Your task to perform on an android device: Show me productivity apps on the Play Store Image 0: 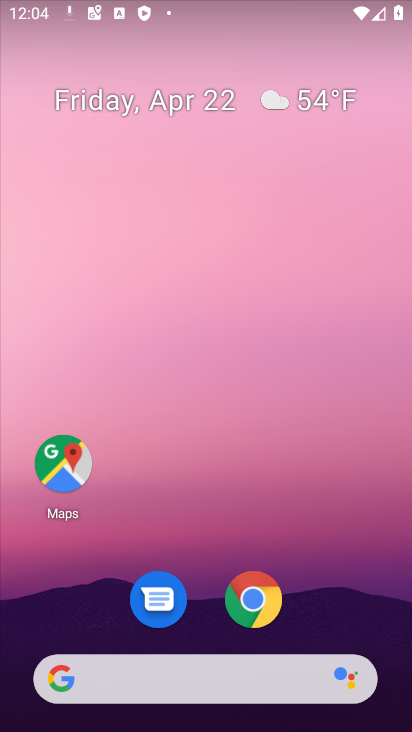
Step 0: drag from (221, 504) to (187, 58)
Your task to perform on an android device: Show me productivity apps on the Play Store Image 1: 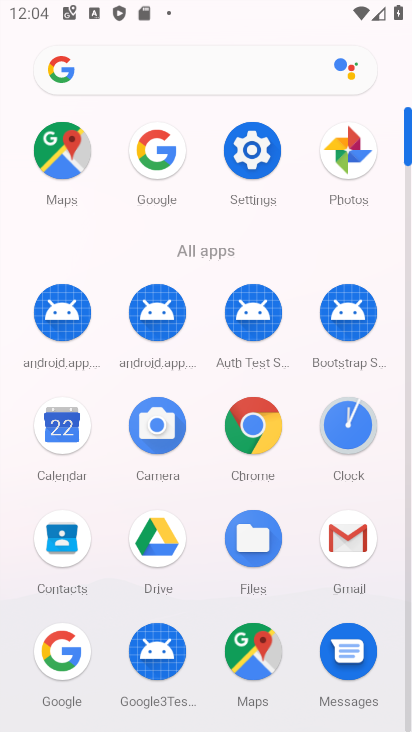
Step 1: drag from (203, 673) to (160, 220)
Your task to perform on an android device: Show me productivity apps on the Play Store Image 2: 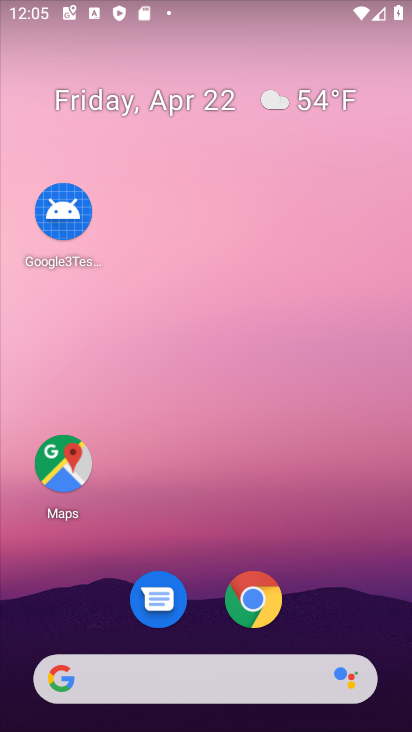
Step 2: drag from (307, 626) to (180, 19)
Your task to perform on an android device: Show me productivity apps on the Play Store Image 3: 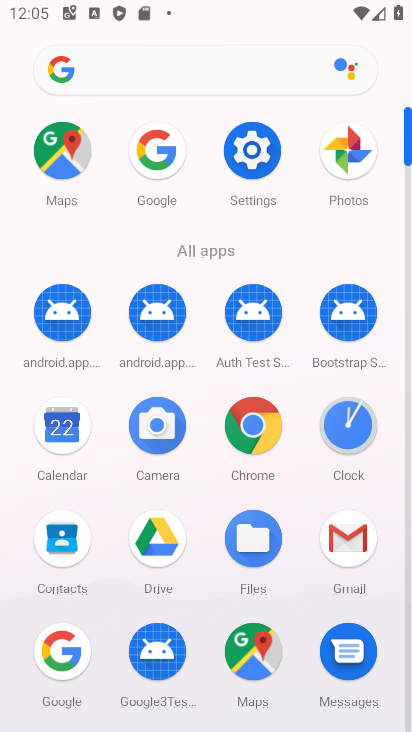
Step 3: drag from (211, 598) to (231, 52)
Your task to perform on an android device: Show me productivity apps on the Play Store Image 4: 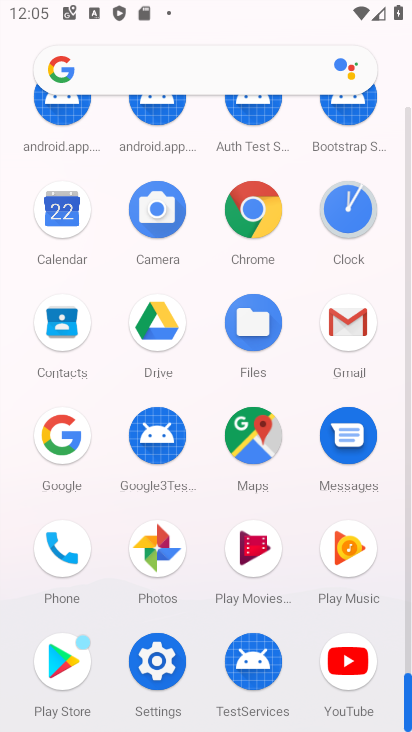
Step 4: click (72, 659)
Your task to perform on an android device: Show me productivity apps on the Play Store Image 5: 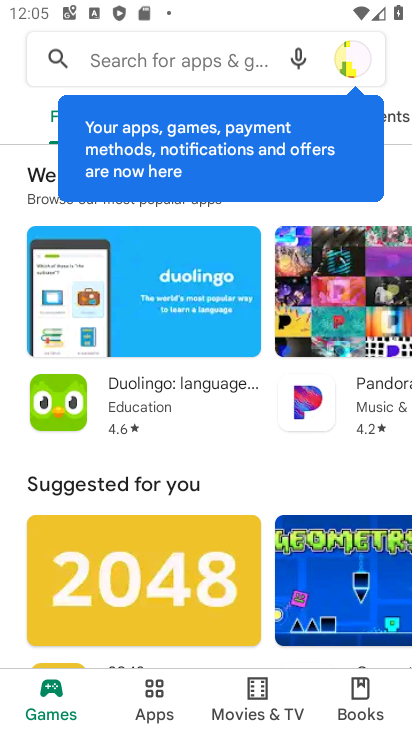
Step 5: click (202, 60)
Your task to perform on an android device: Show me productivity apps on the Play Store Image 6: 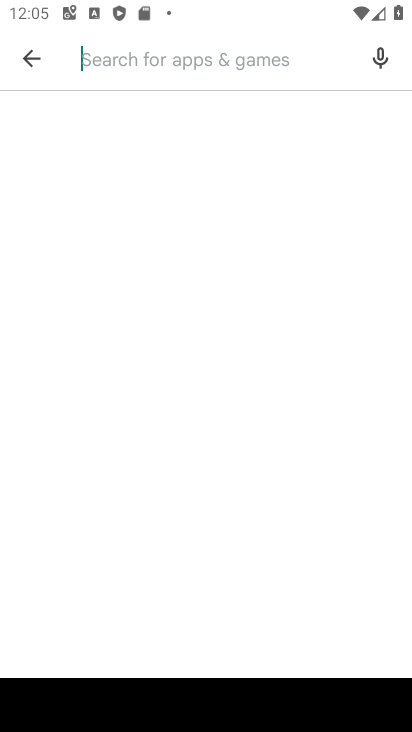
Step 6: type "productivity apps"
Your task to perform on an android device: Show me productivity apps on the Play Store Image 7: 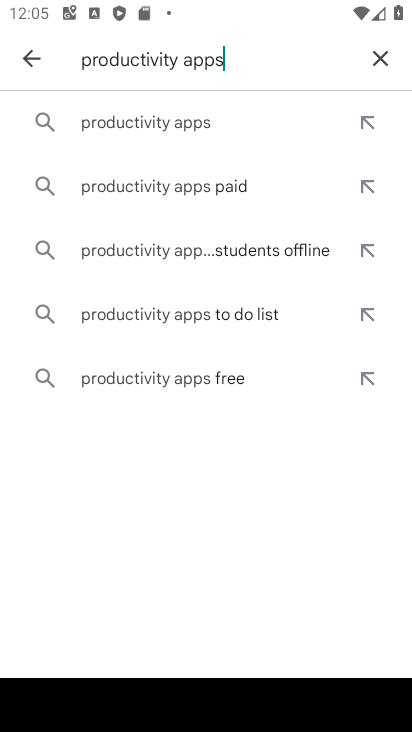
Step 7: click (228, 111)
Your task to perform on an android device: Show me productivity apps on the Play Store Image 8: 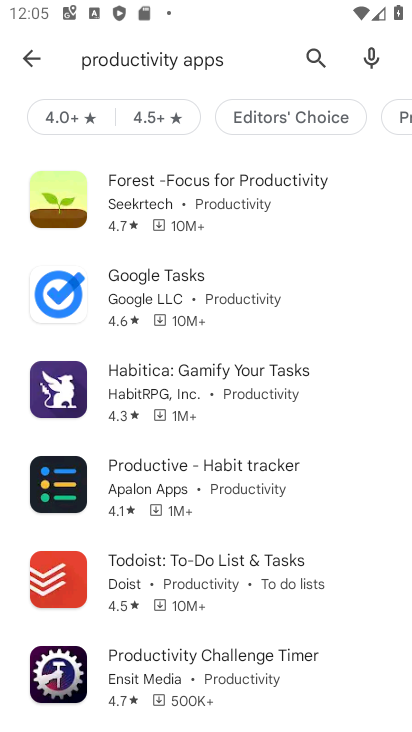
Step 8: task complete